Your task to perform on an android device: turn off wifi Image 0: 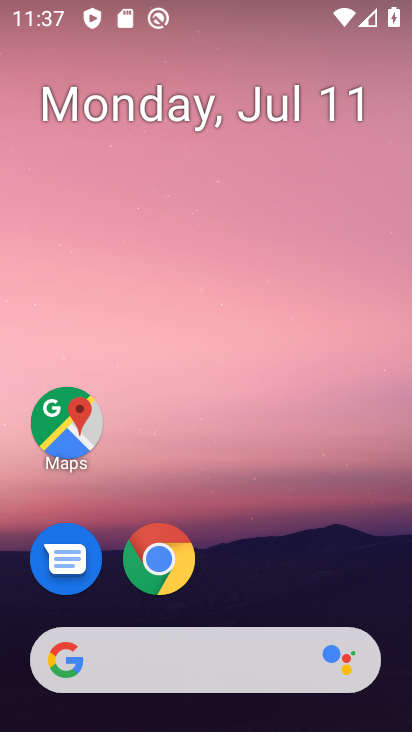
Step 0: drag from (206, 529) to (248, 269)
Your task to perform on an android device: turn off wifi Image 1: 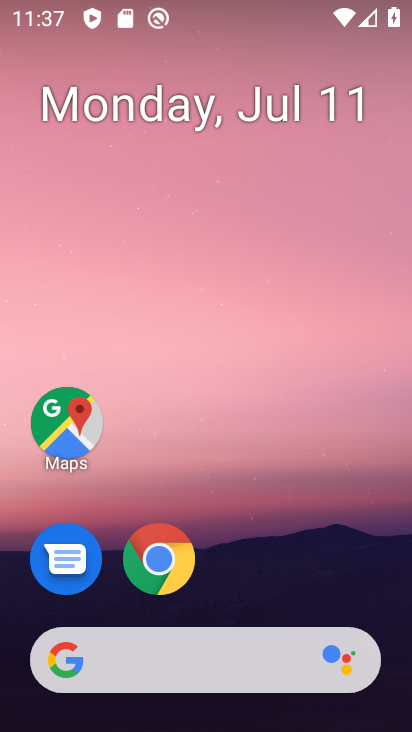
Step 1: drag from (184, 624) to (255, 102)
Your task to perform on an android device: turn off wifi Image 2: 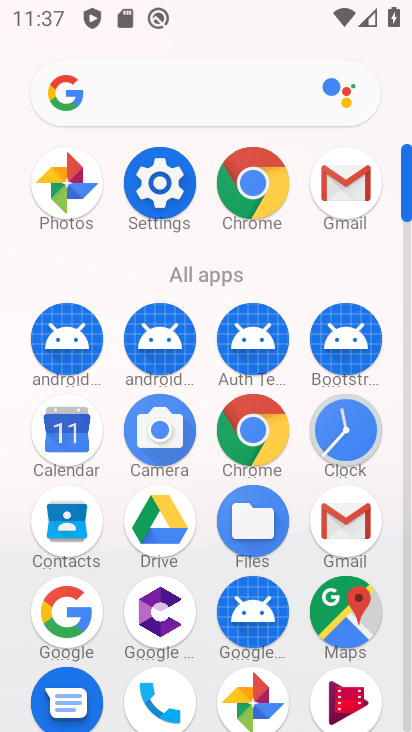
Step 2: click (161, 193)
Your task to perform on an android device: turn off wifi Image 3: 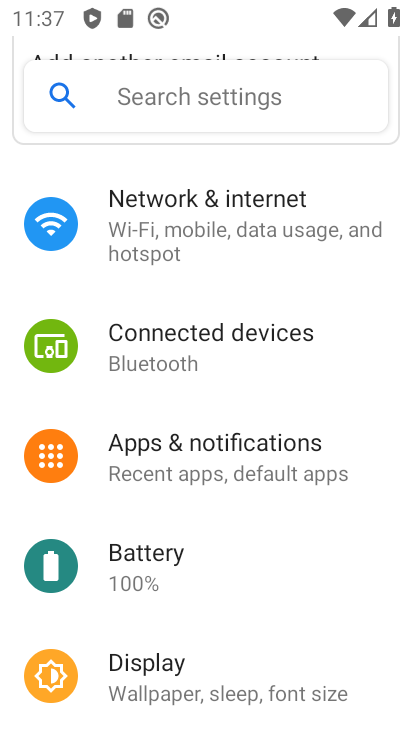
Step 3: click (168, 214)
Your task to perform on an android device: turn off wifi Image 4: 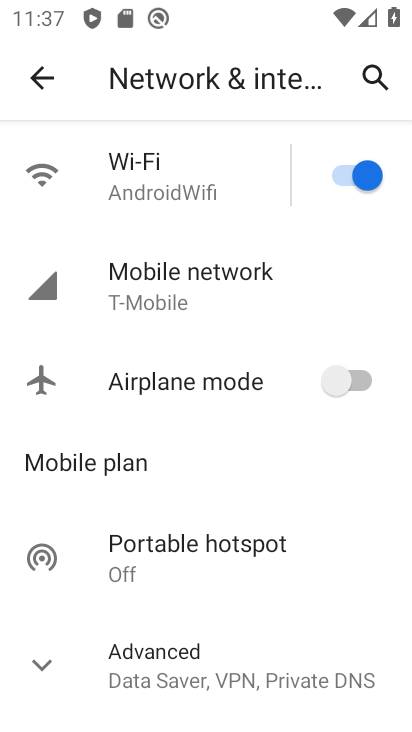
Step 4: click (344, 170)
Your task to perform on an android device: turn off wifi Image 5: 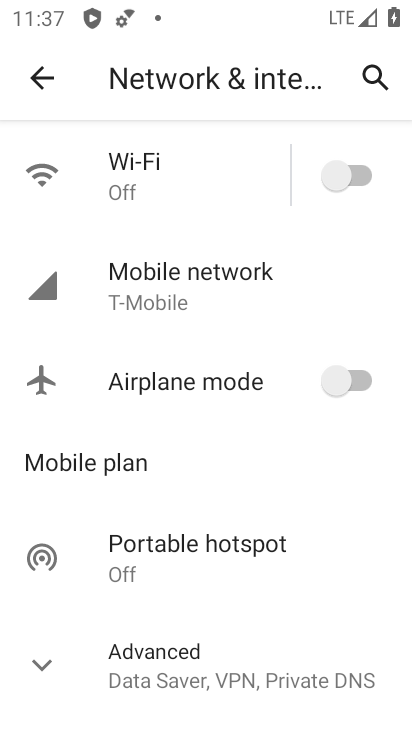
Step 5: task complete